Your task to perform on an android device: see sites visited before in the chrome app Image 0: 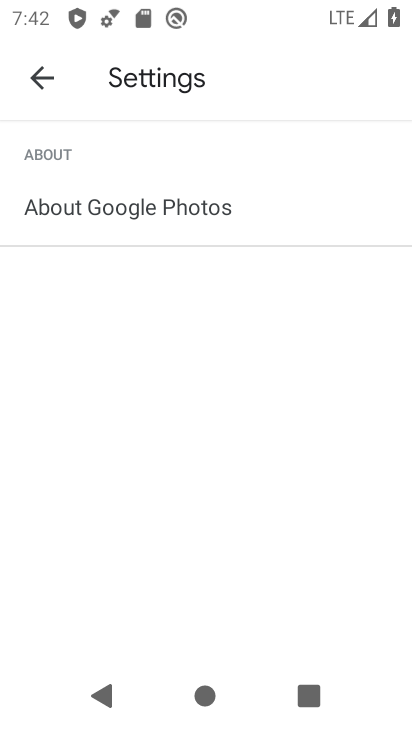
Step 0: press home button
Your task to perform on an android device: see sites visited before in the chrome app Image 1: 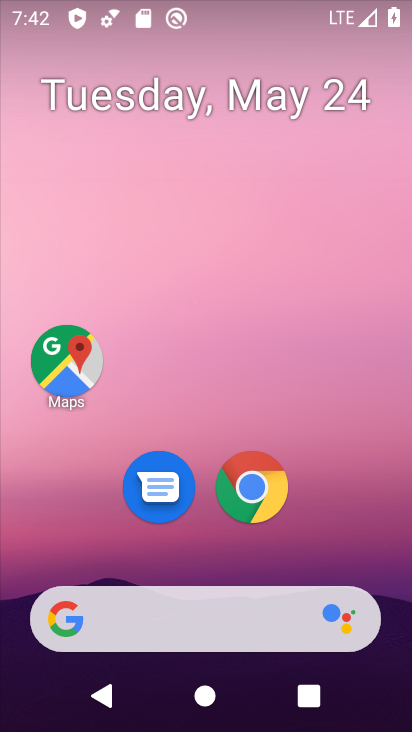
Step 1: click (269, 467)
Your task to perform on an android device: see sites visited before in the chrome app Image 2: 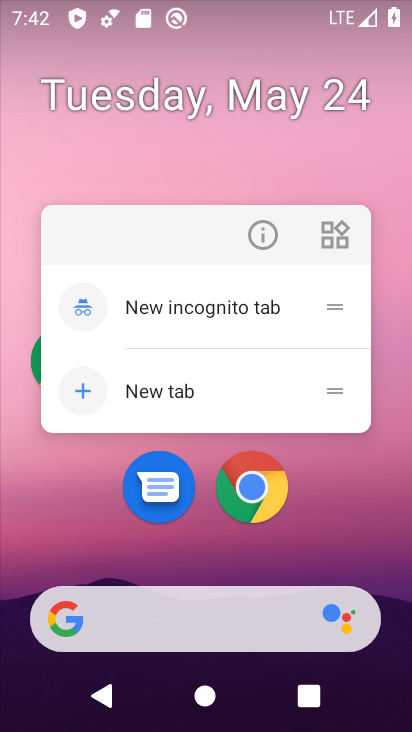
Step 2: click (266, 474)
Your task to perform on an android device: see sites visited before in the chrome app Image 3: 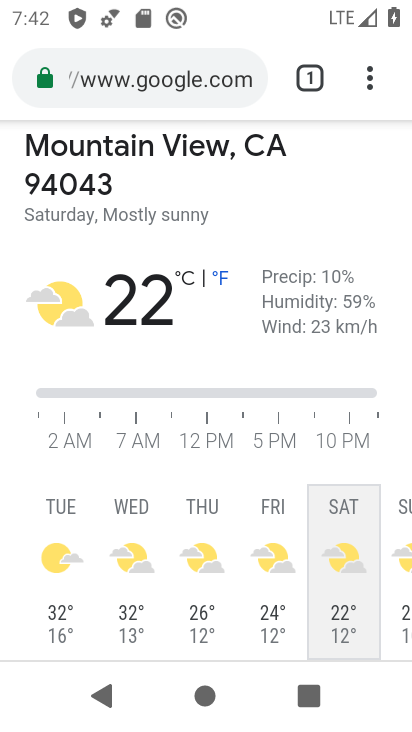
Step 3: drag from (368, 78) to (132, 441)
Your task to perform on an android device: see sites visited before in the chrome app Image 4: 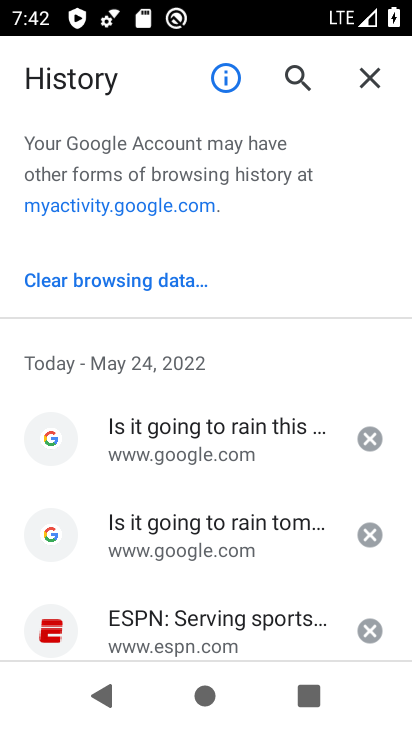
Step 4: click (199, 632)
Your task to perform on an android device: see sites visited before in the chrome app Image 5: 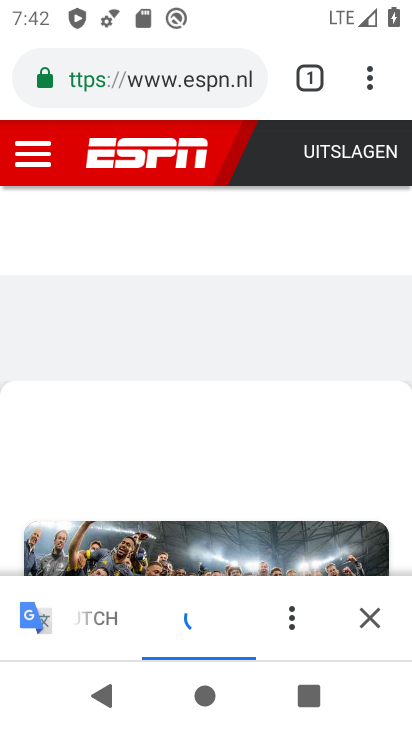
Step 5: task complete